Your task to perform on an android device: turn on wifi Image 0: 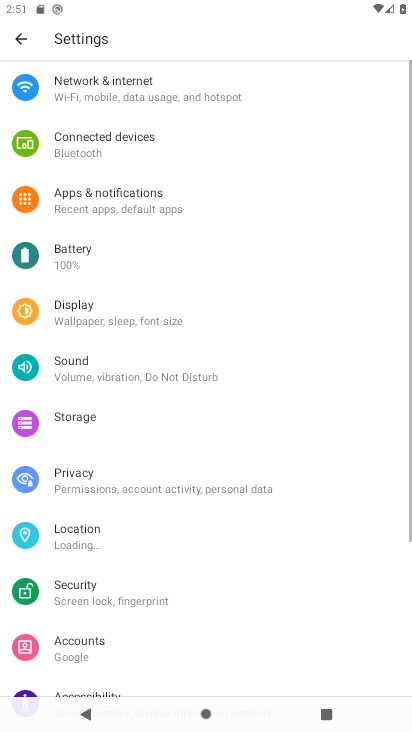
Step 0: drag from (211, 628) to (243, 125)
Your task to perform on an android device: turn on wifi Image 1: 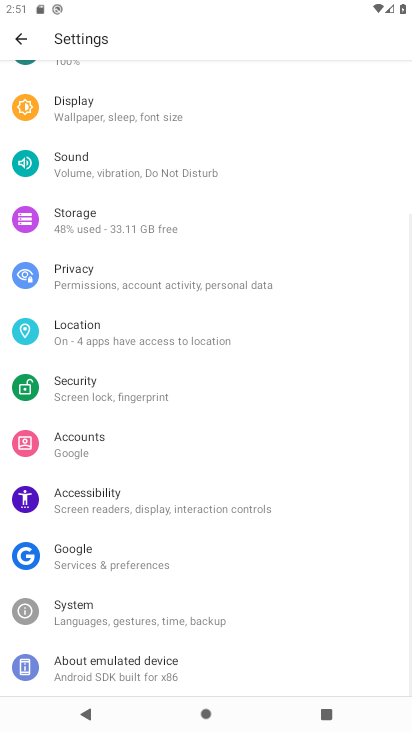
Step 1: drag from (319, 92) to (280, 589)
Your task to perform on an android device: turn on wifi Image 2: 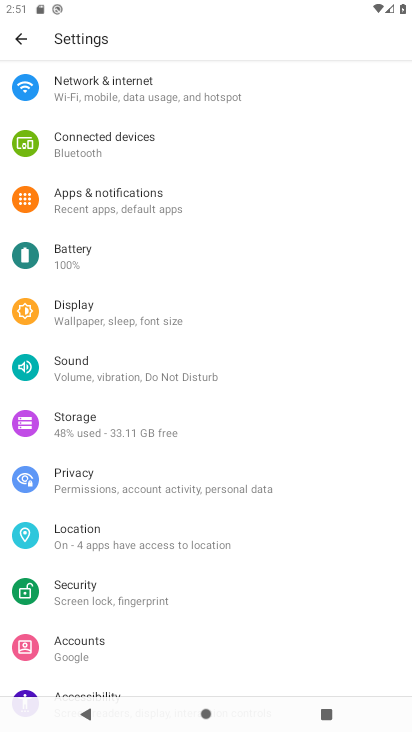
Step 2: drag from (172, 122) to (204, 722)
Your task to perform on an android device: turn on wifi Image 3: 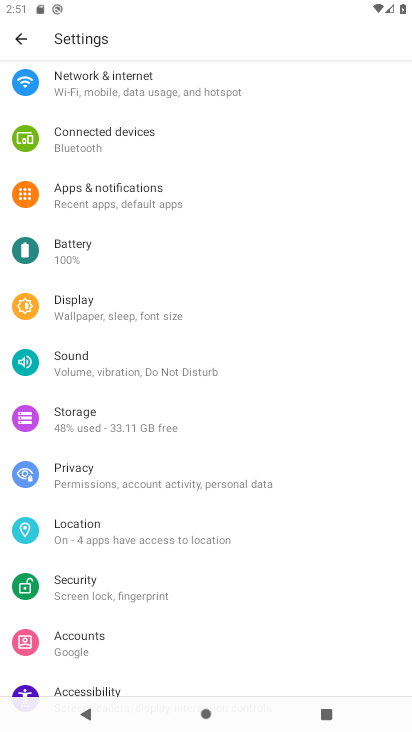
Step 3: click (232, 95)
Your task to perform on an android device: turn on wifi Image 4: 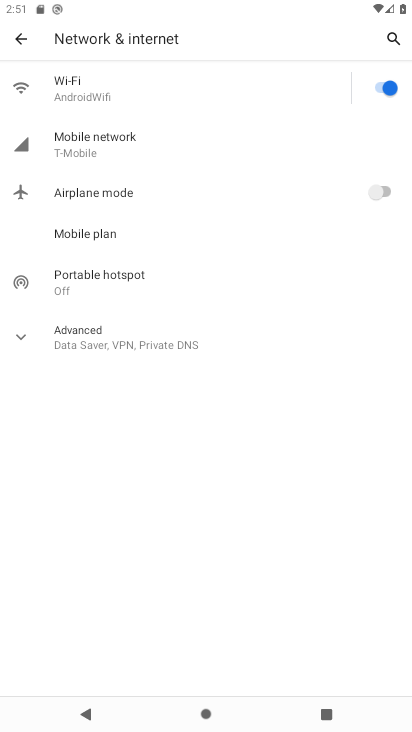
Step 4: task complete